Your task to perform on an android device: open sync settings in chrome Image 0: 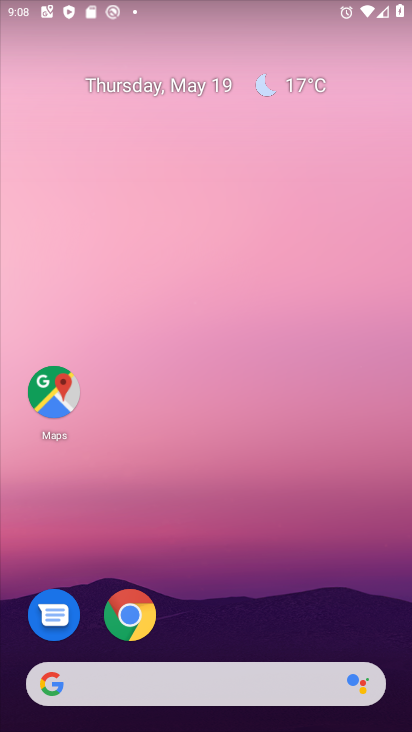
Step 0: press home button
Your task to perform on an android device: open sync settings in chrome Image 1: 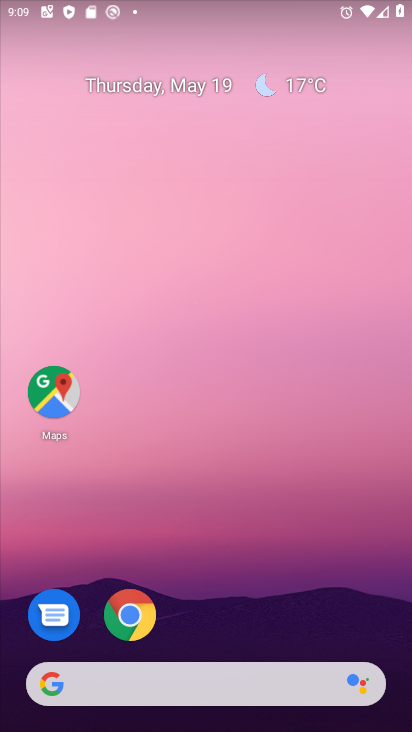
Step 1: click (147, 615)
Your task to perform on an android device: open sync settings in chrome Image 2: 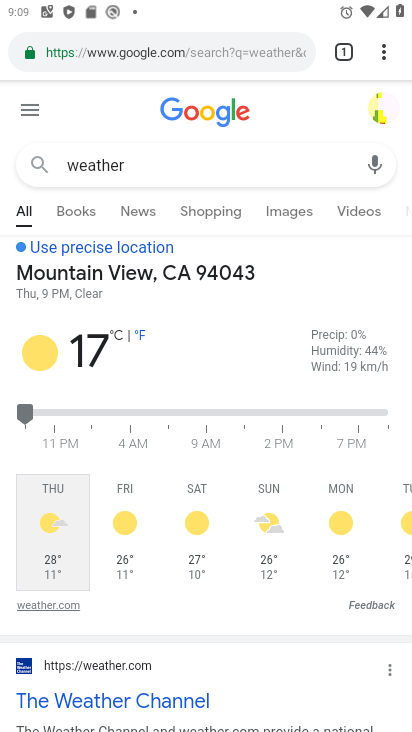
Step 2: drag from (390, 40) to (205, 619)
Your task to perform on an android device: open sync settings in chrome Image 3: 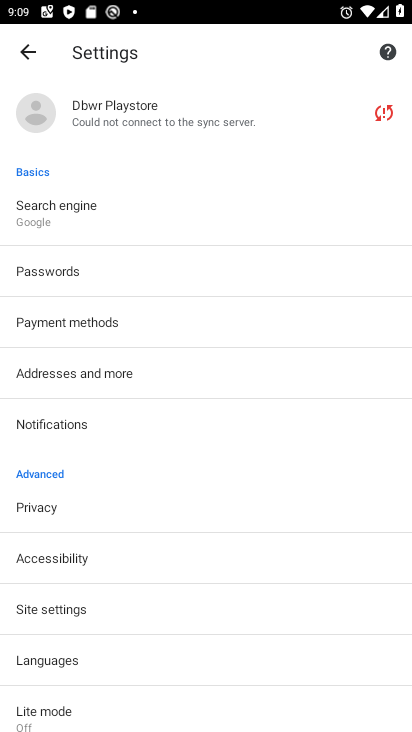
Step 3: click (123, 100)
Your task to perform on an android device: open sync settings in chrome Image 4: 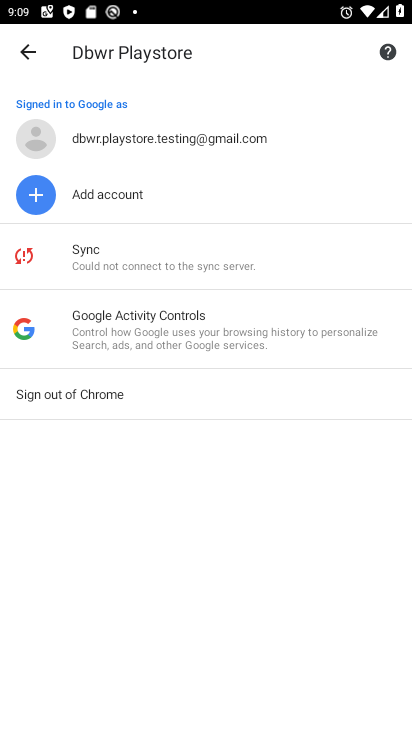
Step 4: click (125, 263)
Your task to perform on an android device: open sync settings in chrome Image 5: 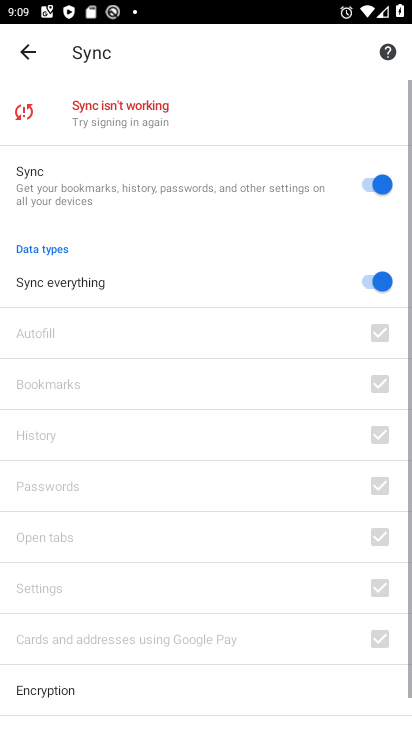
Step 5: task complete